Your task to perform on an android device: open app "Google Find My Device" Image 0: 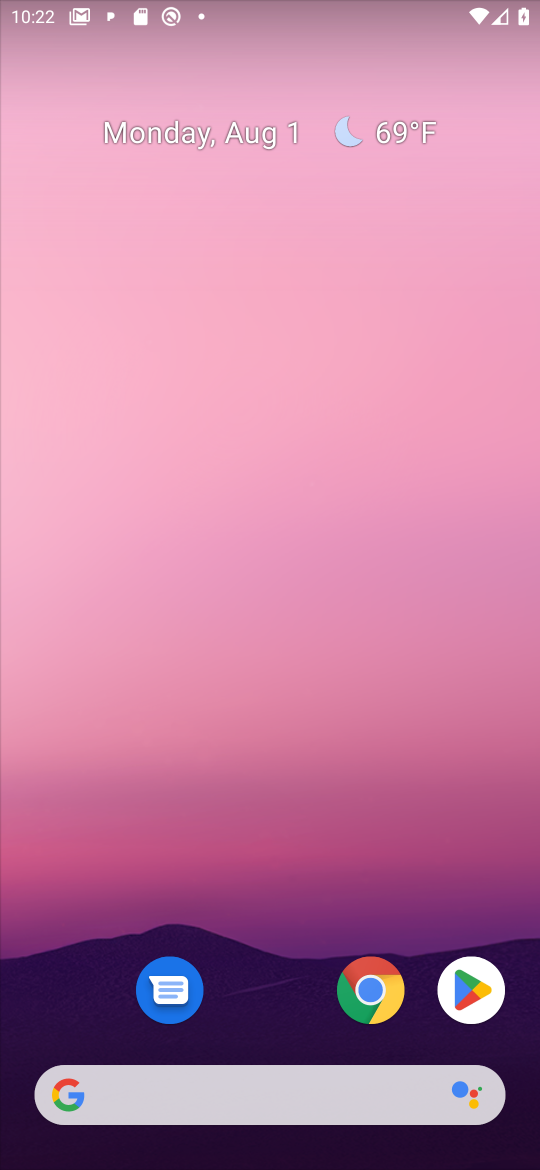
Step 0: press home button
Your task to perform on an android device: open app "Google Find My Device" Image 1: 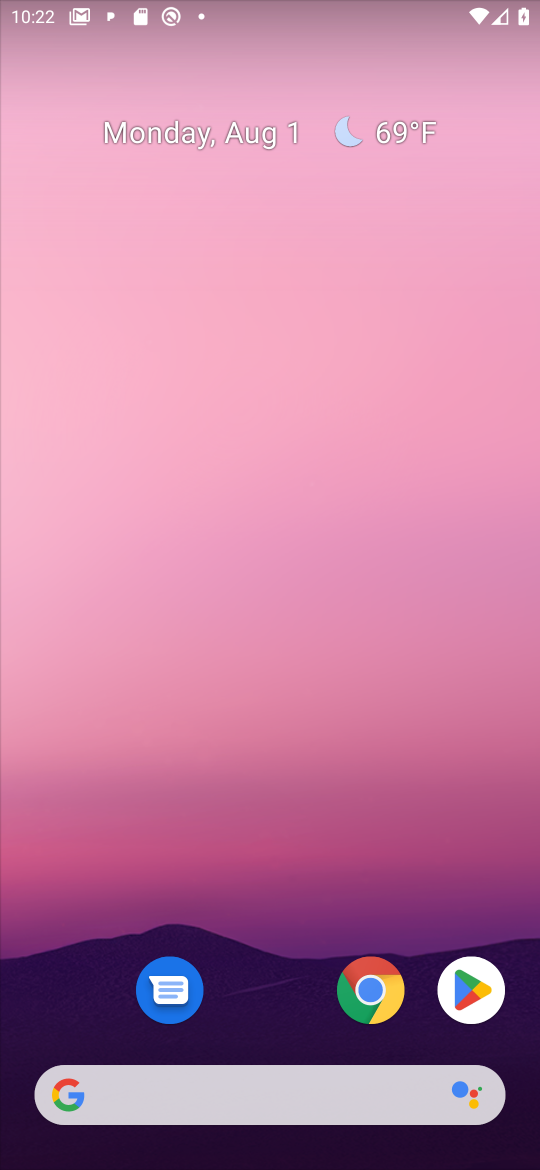
Step 1: click (451, 983)
Your task to perform on an android device: open app "Google Find My Device" Image 2: 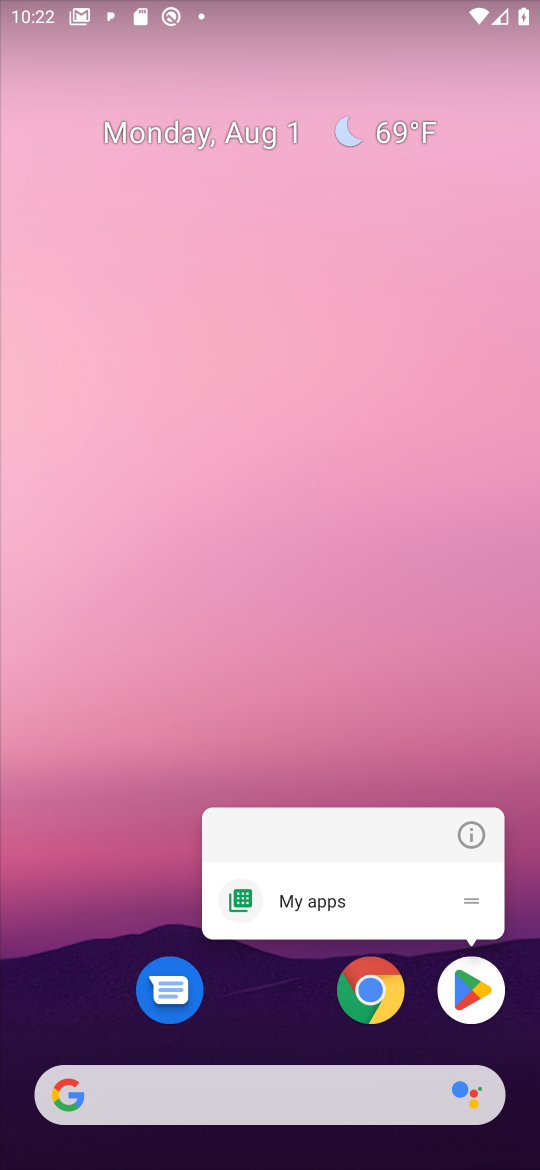
Step 2: click (459, 988)
Your task to perform on an android device: open app "Google Find My Device" Image 3: 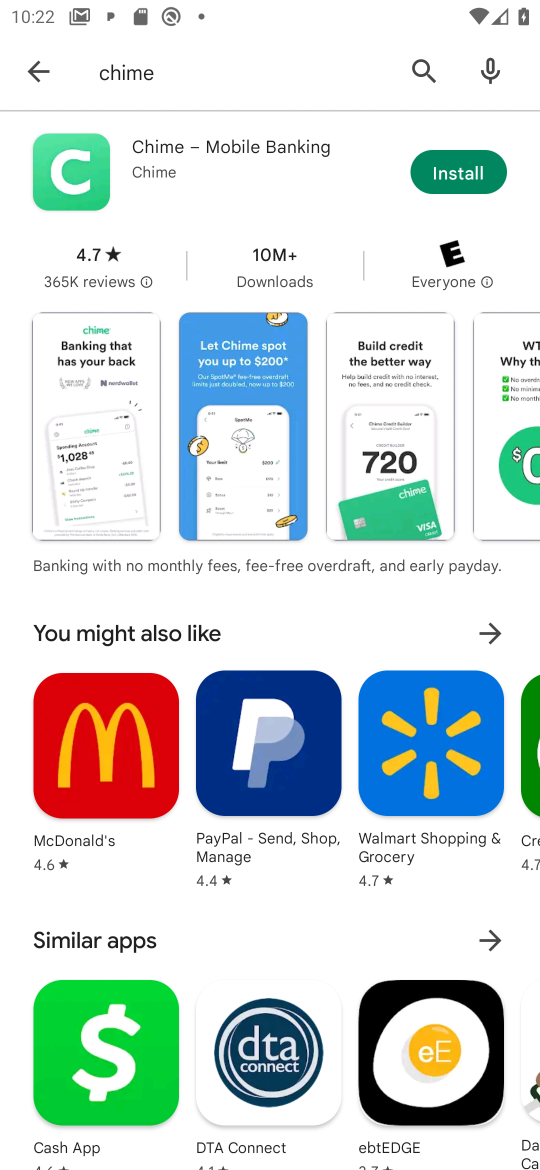
Step 3: click (409, 74)
Your task to perform on an android device: open app "Google Find My Device" Image 4: 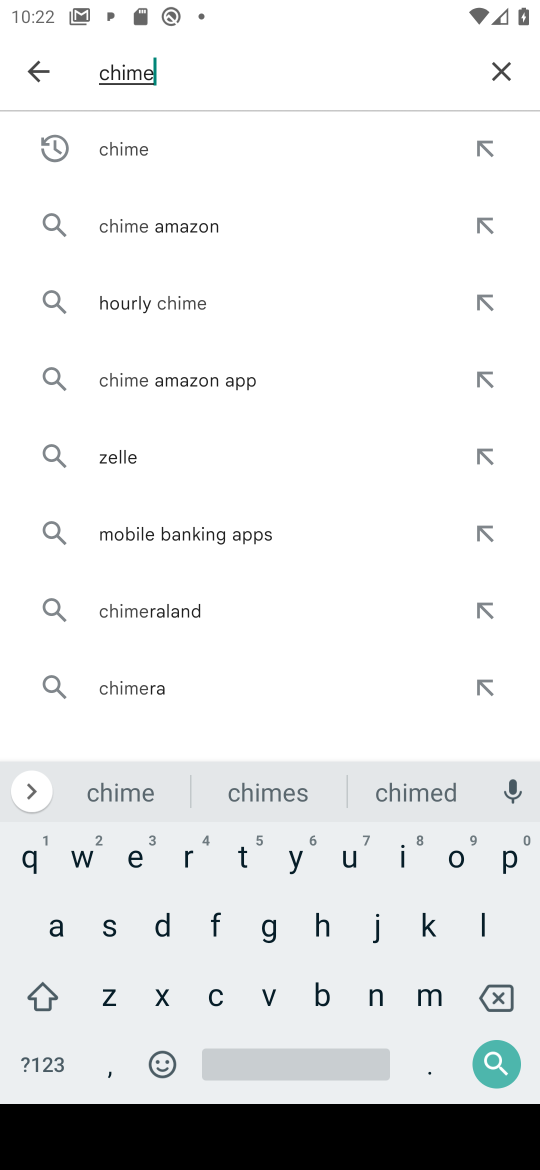
Step 4: click (502, 63)
Your task to perform on an android device: open app "Google Find My Device" Image 5: 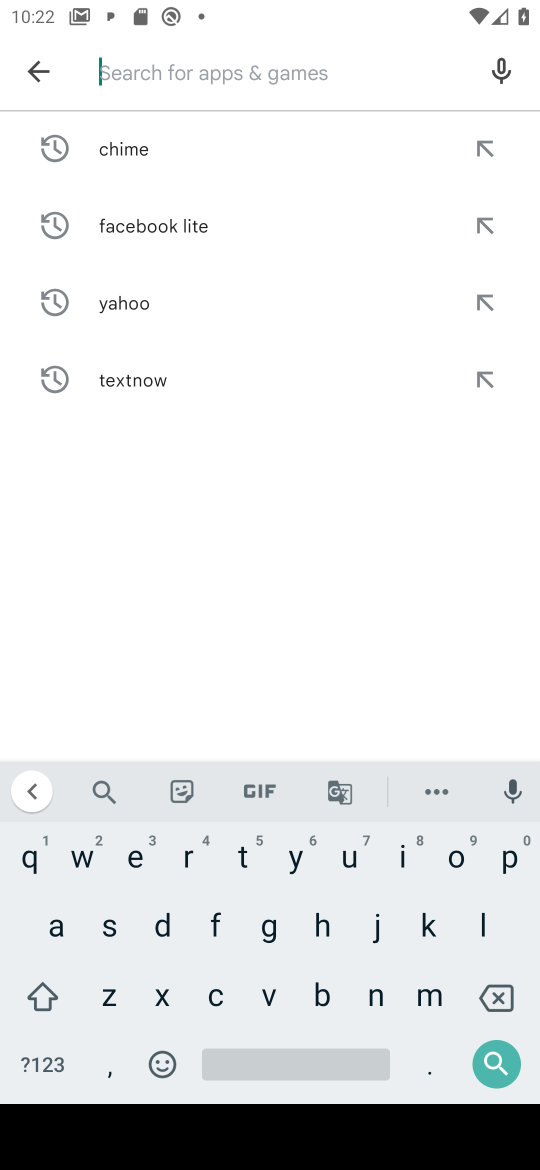
Step 5: click (215, 927)
Your task to perform on an android device: open app "Google Find My Device" Image 6: 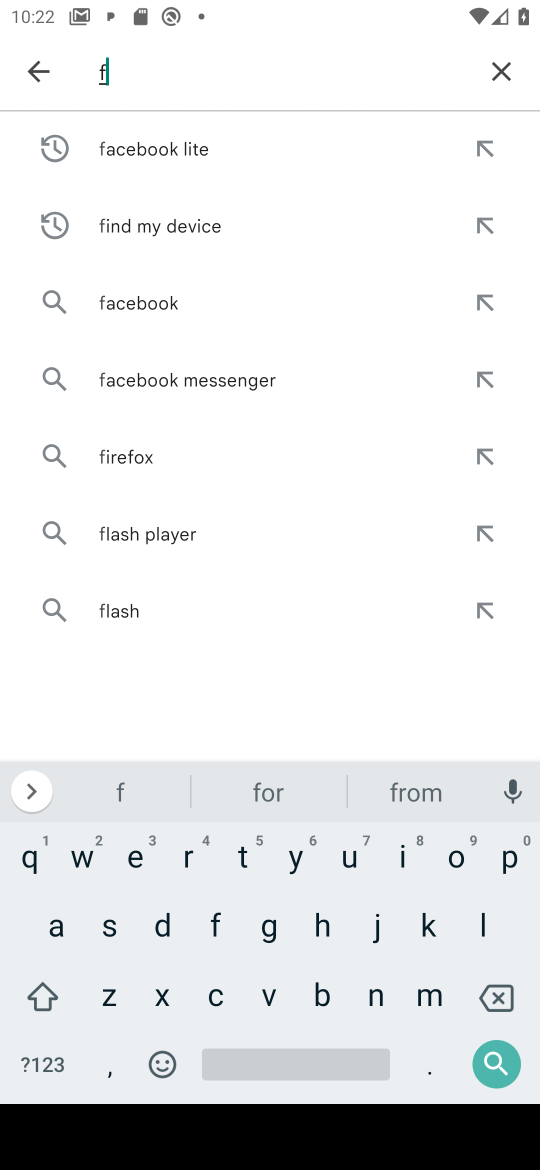
Step 6: click (403, 849)
Your task to perform on an android device: open app "Google Find My Device" Image 7: 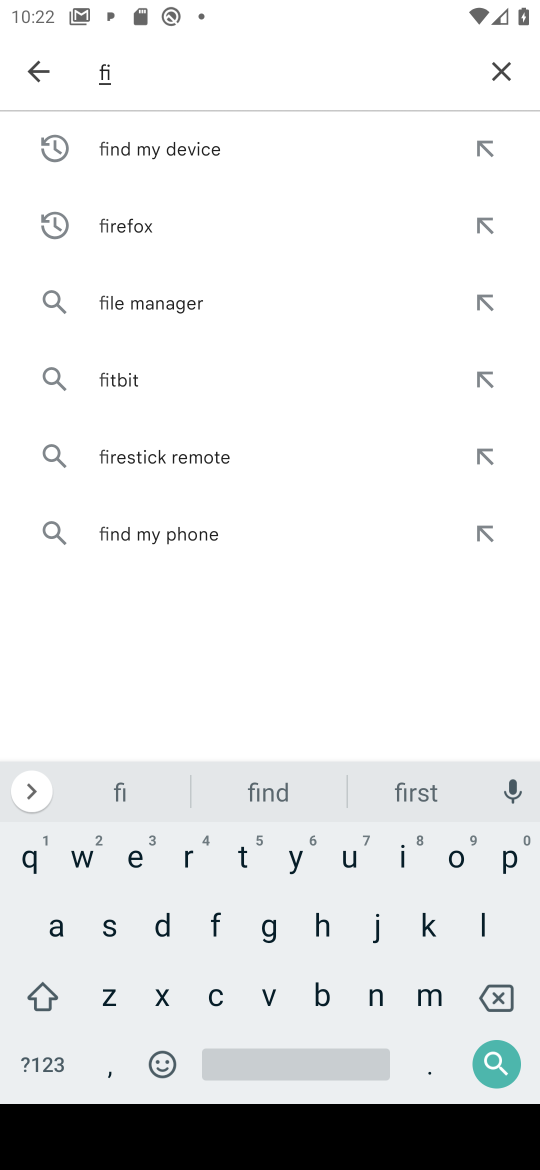
Step 7: click (291, 794)
Your task to perform on an android device: open app "Google Find My Device" Image 8: 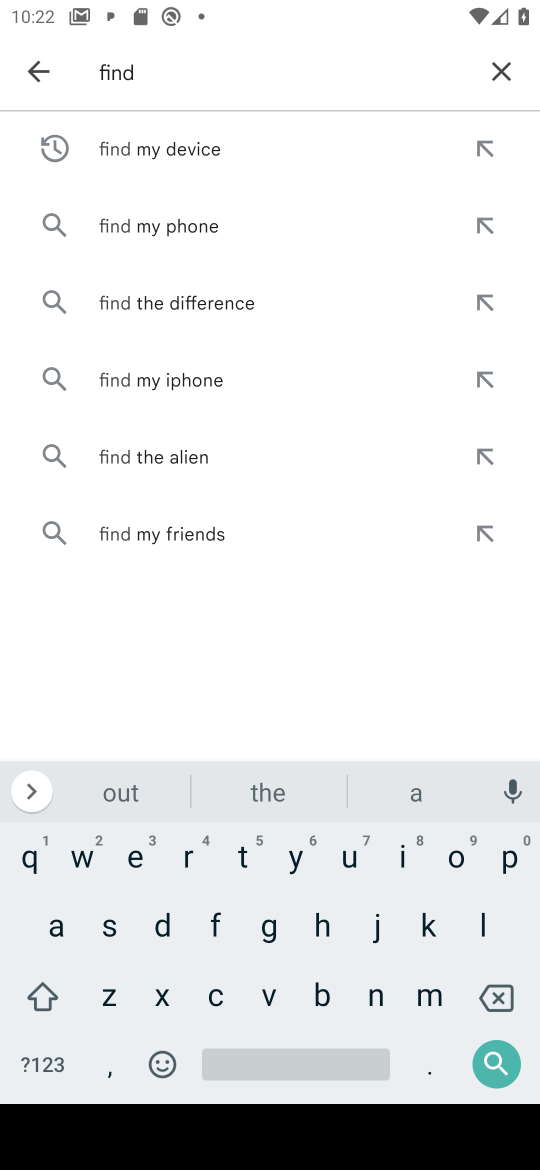
Step 8: click (180, 150)
Your task to perform on an android device: open app "Google Find My Device" Image 9: 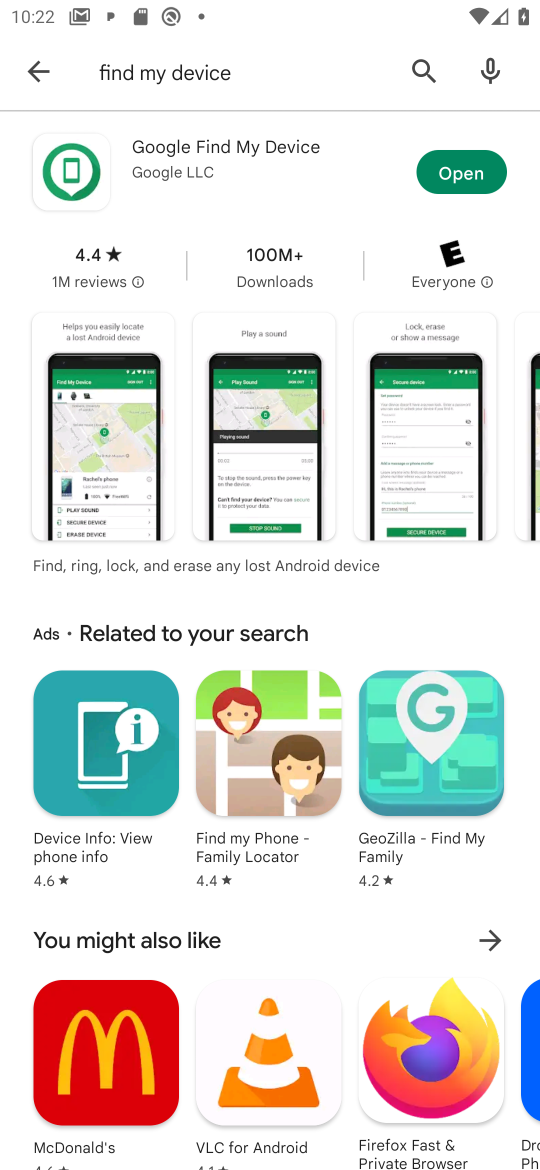
Step 9: click (453, 172)
Your task to perform on an android device: open app "Google Find My Device" Image 10: 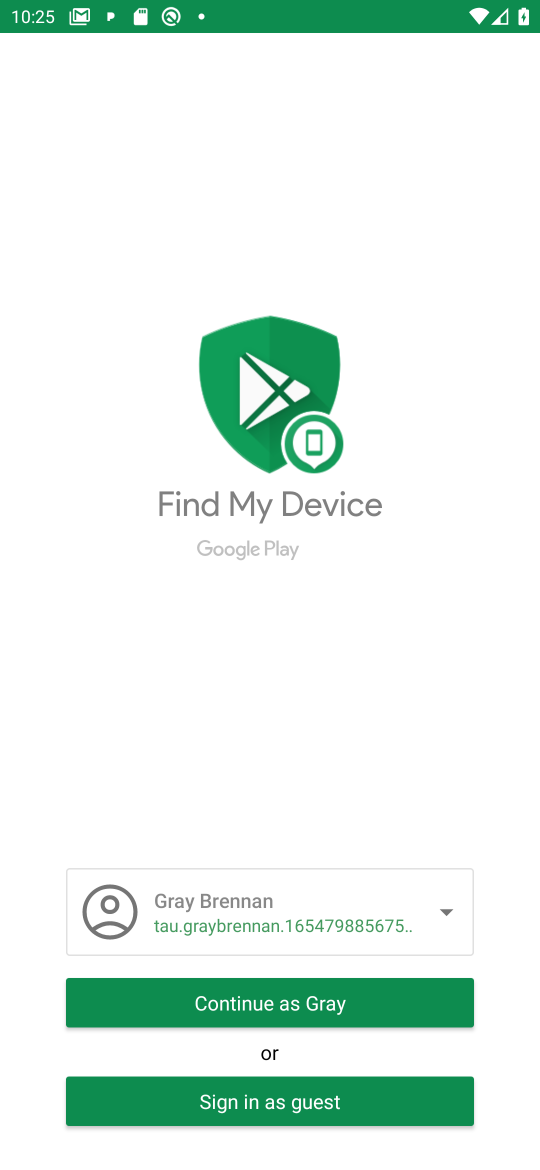
Step 10: task complete